Your task to perform on an android device: refresh tabs in the chrome app Image 0: 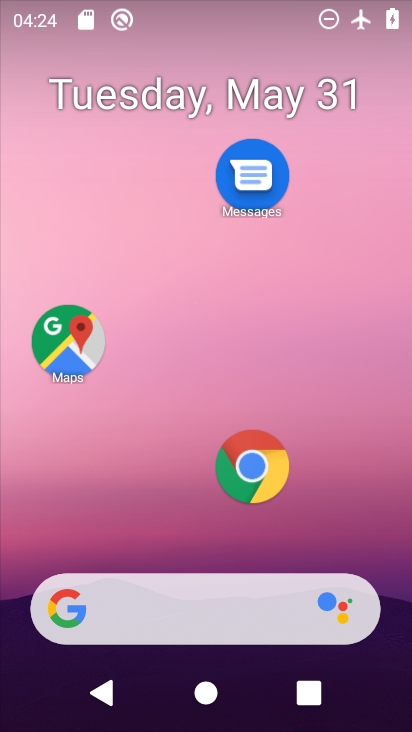
Step 0: click (257, 452)
Your task to perform on an android device: refresh tabs in the chrome app Image 1: 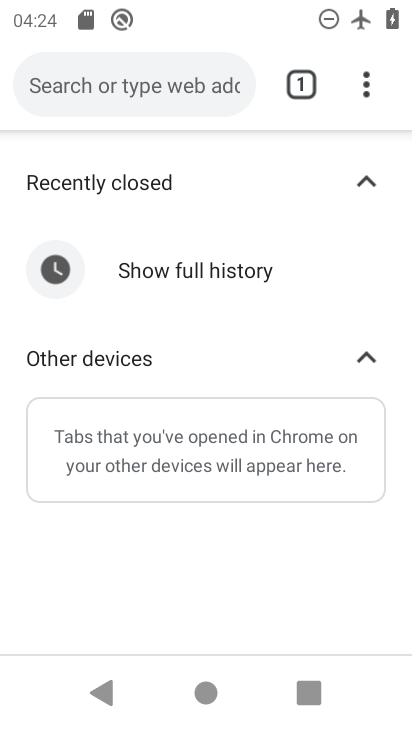
Step 1: click (363, 84)
Your task to perform on an android device: refresh tabs in the chrome app Image 2: 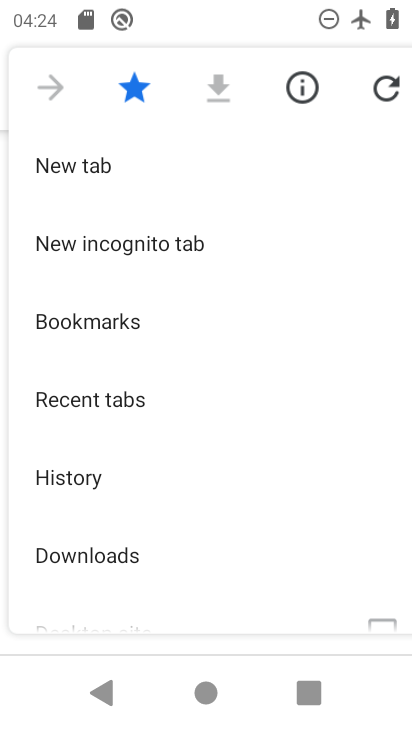
Step 2: click (386, 87)
Your task to perform on an android device: refresh tabs in the chrome app Image 3: 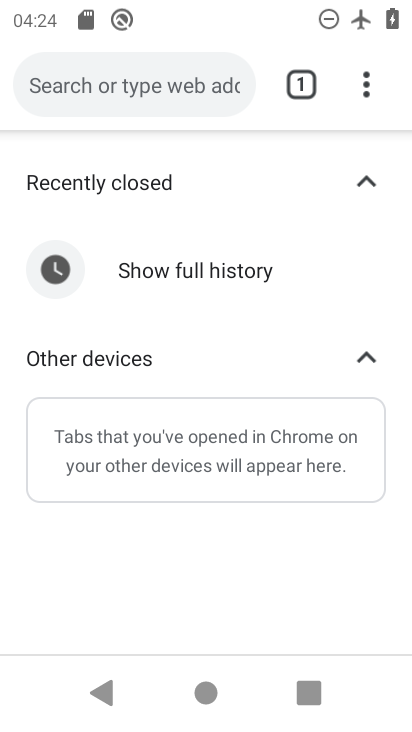
Step 3: task complete